Your task to perform on an android device: Open calendar and show me the third week of next month Image 0: 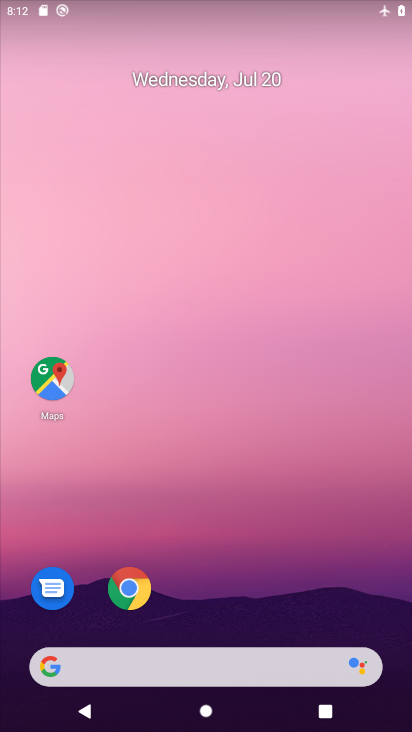
Step 0: press home button
Your task to perform on an android device: Open calendar and show me the third week of next month Image 1: 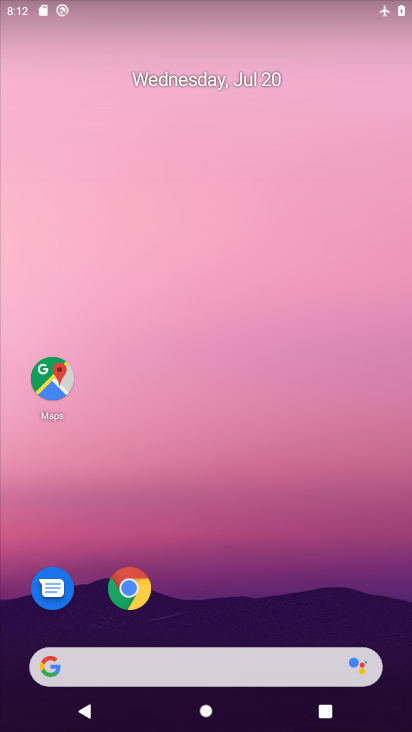
Step 1: drag from (208, 619) to (216, 86)
Your task to perform on an android device: Open calendar and show me the third week of next month Image 2: 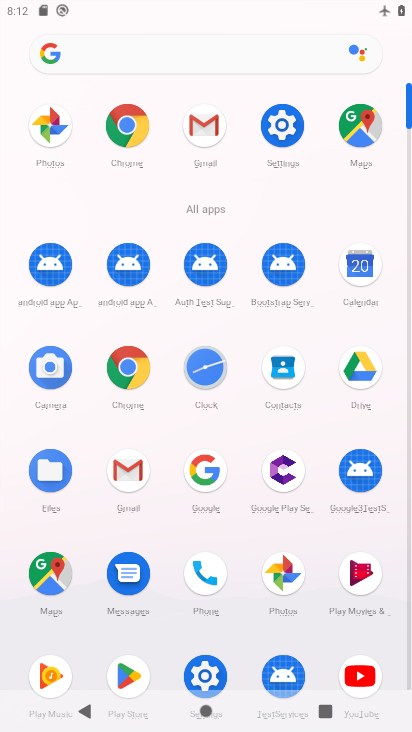
Step 2: click (357, 263)
Your task to perform on an android device: Open calendar and show me the third week of next month Image 3: 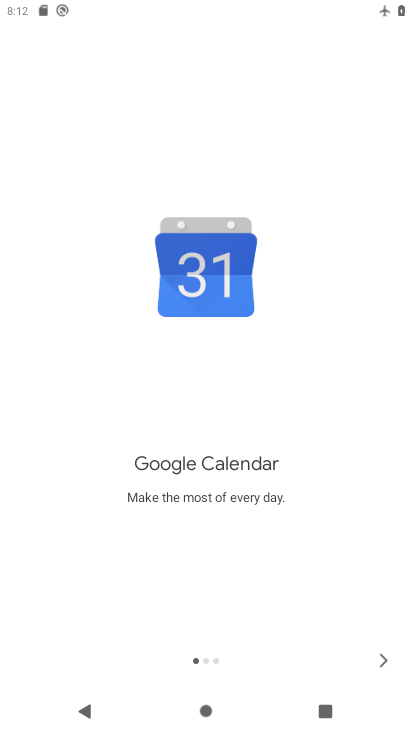
Step 3: click (384, 652)
Your task to perform on an android device: Open calendar and show me the third week of next month Image 4: 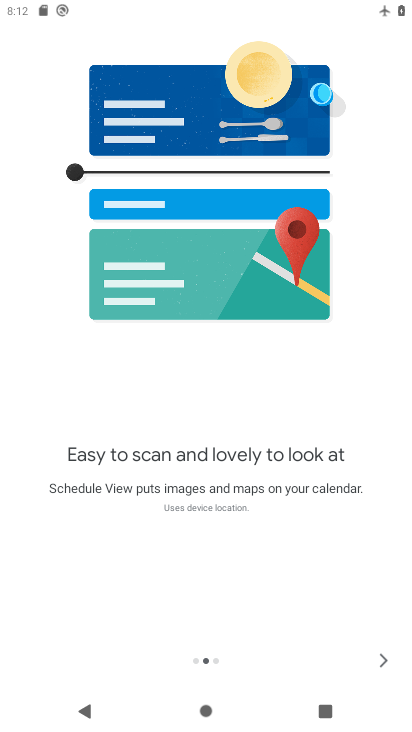
Step 4: click (385, 658)
Your task to perform on an android device: Open calendar and show me the third week of next month Image 5: 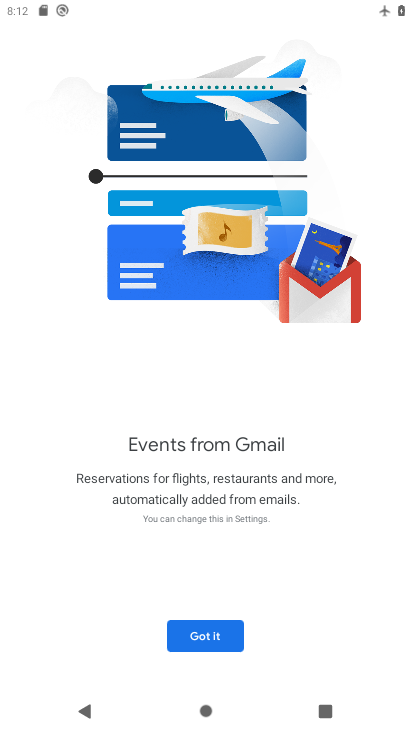
Step 5: click (205, 635)
Your task to perform on an android device: Open calendar and show me the third week of next month Image 6: 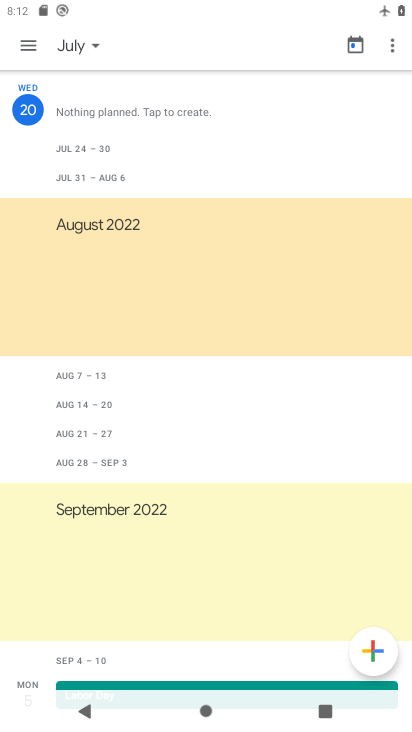
Step 6: click (25, 40)
Your task to perform on an android device: Open calendar and show me the third week of next month Image 7: 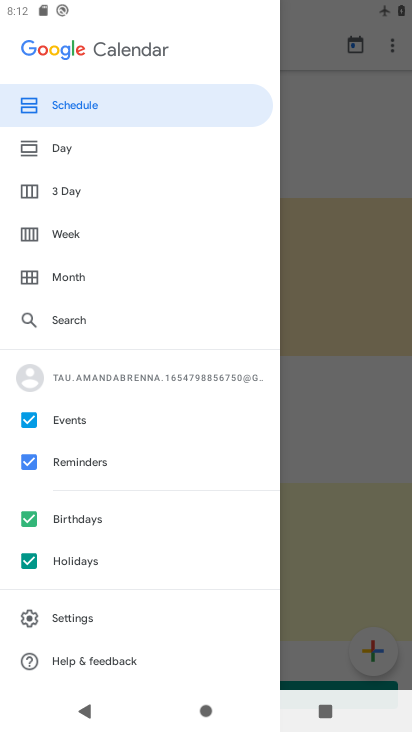
Step 7: click (68, 230)
Your task to perform on an android device: Open calendar and show me the third week of next month Image 8: 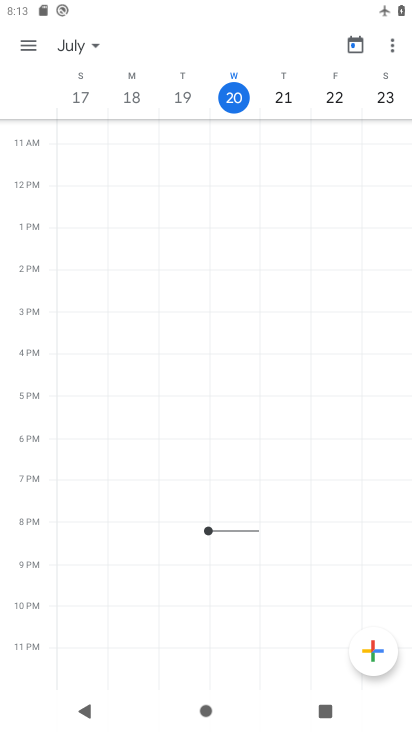
Step 8: click (93, 46)
Your task to perform on an android device: Open calendar and show me the third week of next month Image 9: 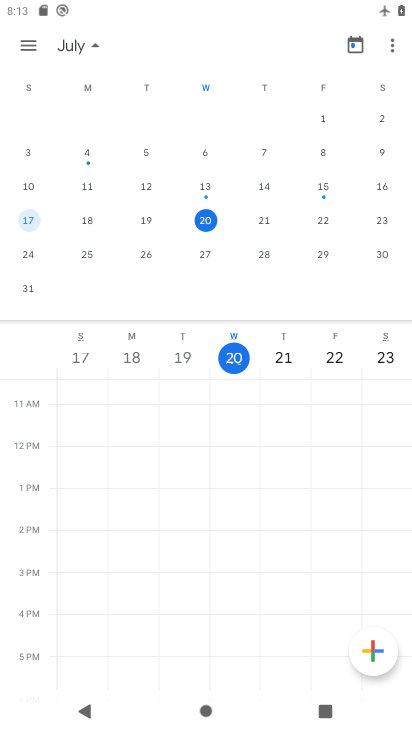
Step 9: drag from (380, 222) to (3, 234)
Your task to perform on an android device: Open calendar and show me the third week of next month Image 10: 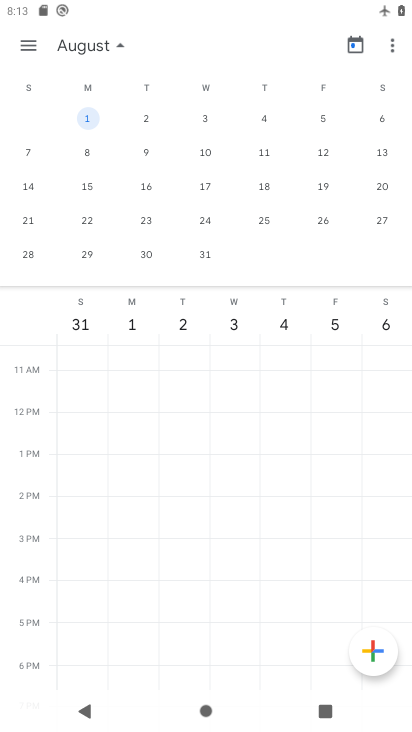
Step 10: click (25, 183)
Your task to perform on an android device: Open calendar and show me the third week of next month Image 11: 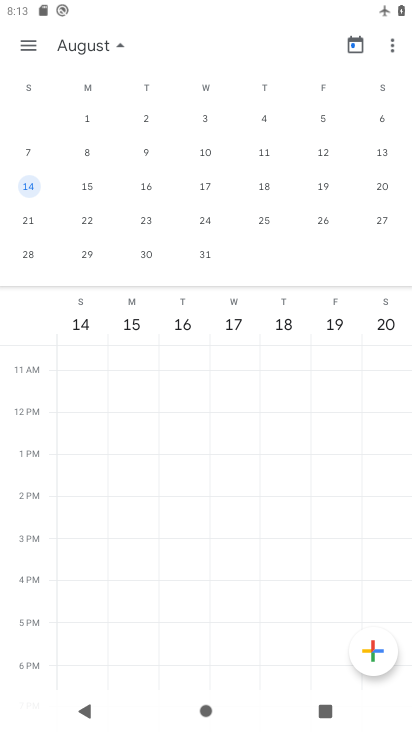
Step 11: click (114, 45)
Your task to perform on an android device: Open calendar and show me the third week of next month Image 12: 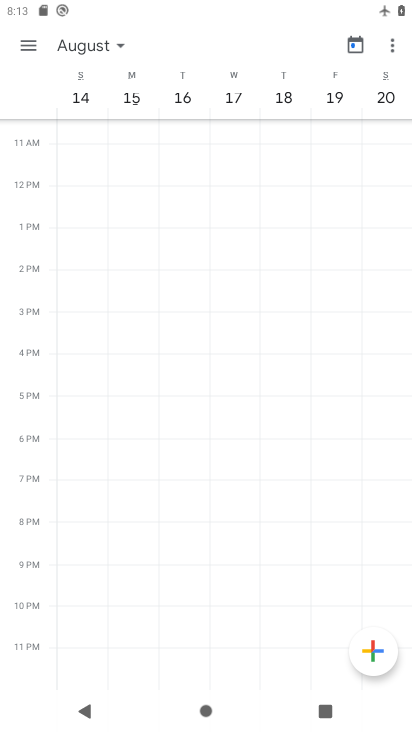
Step 12: click (83, 96)
Your task to perform on an android device: Open calendar and show me the third week of next month Image 13: 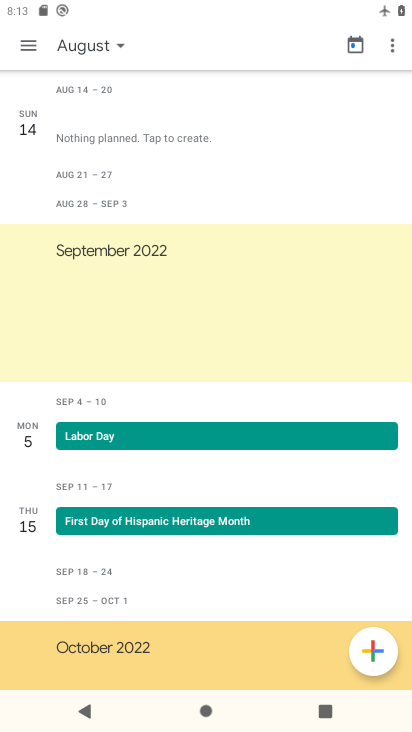
Step 13: task complete